Your task to perform on an android device: find photos in the google photos app Image 0: 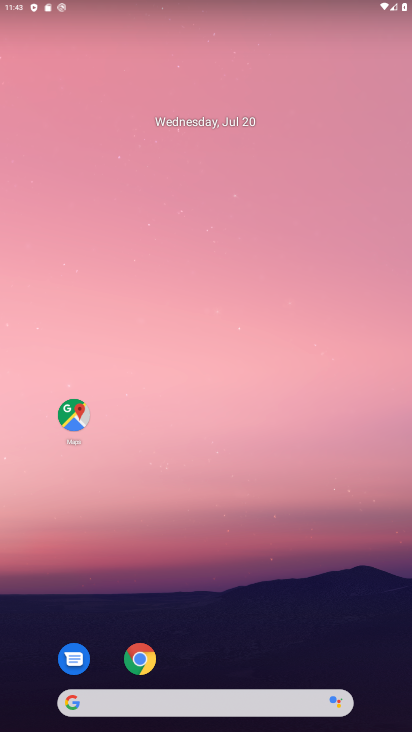
Step 0: drag from (338, 545) to (325, 1)
Your task to perform on an android device: find photos in the google photos app Image 1: 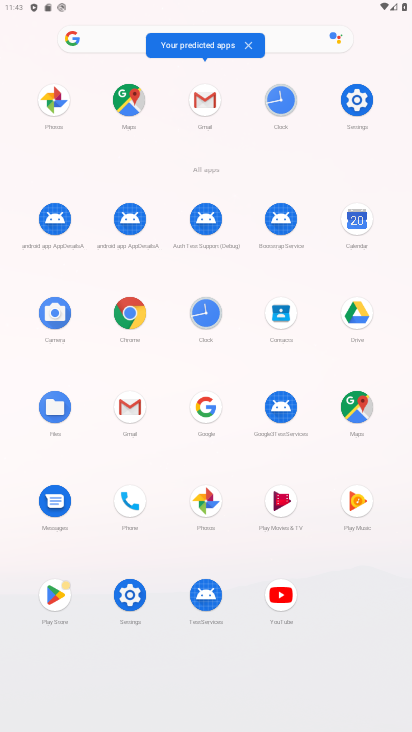
Step 1: click (200, 505)
Your task to perform on an android device: find photos in the google photos app Image 2: 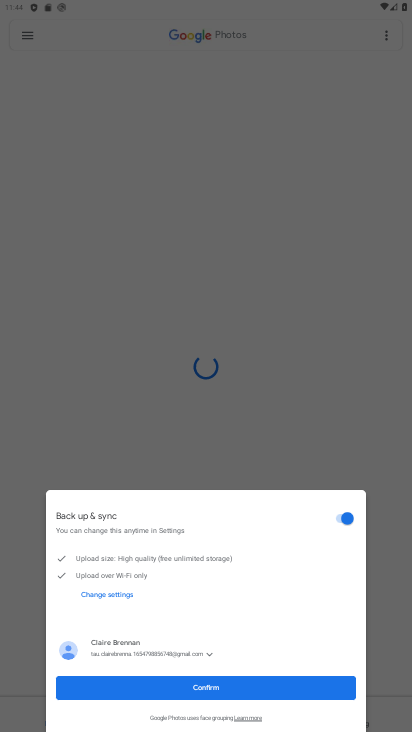
Step 2: click (257, 687)
Your task to perform on an android device: find photos in the google photos app Image 3: 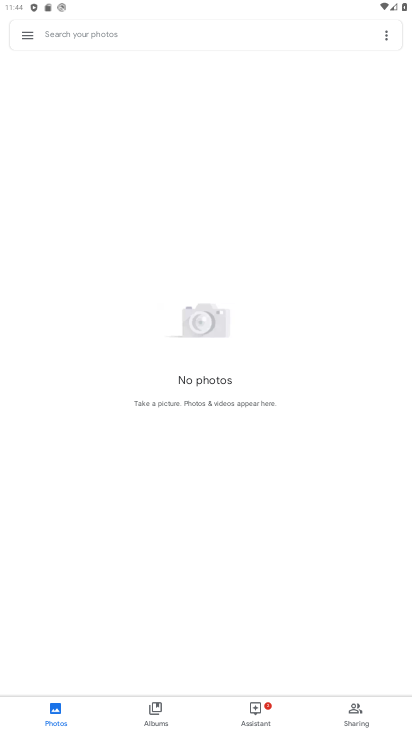
Step 3: task complete